Your task to perform on an android device: change the clock display to analog Image 0: 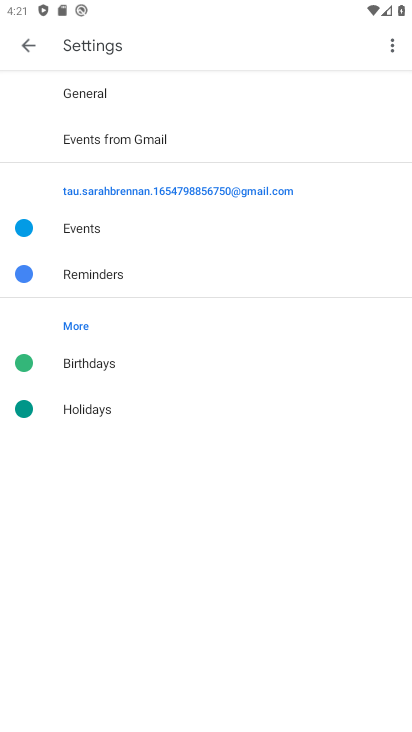
Step 0: press home button
Your task to perform on an android device: change the clock display to analog Image 1: 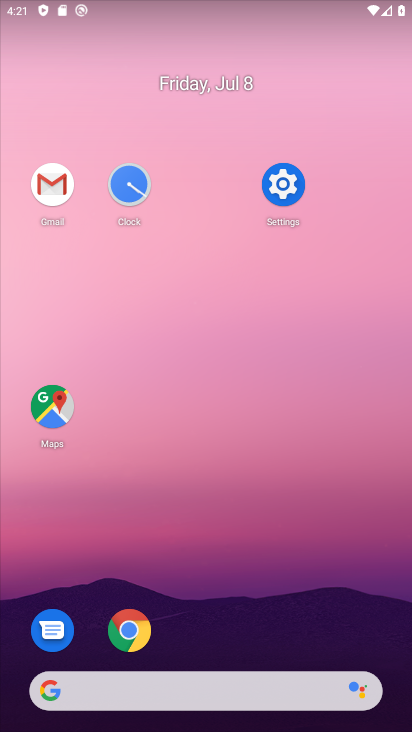
Step 1: click (136, 199)
Your task to perform on an android device: change the clock display to analog Image 2: 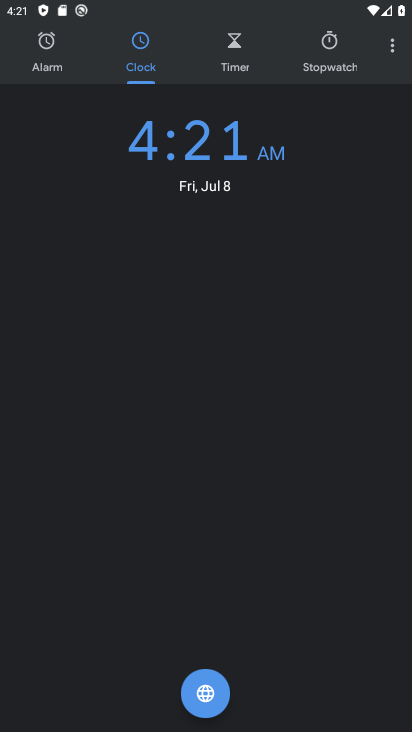
Step 2: click (396, 44)
Your task to perform on an android device: change the clock display to analog Image 3: 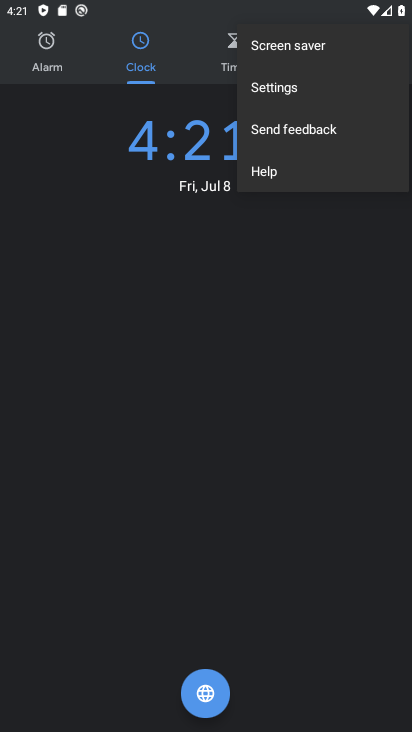
Step 3: click (282, 91)
Your task to perform on an android device: change the clock display to analog Image 4: 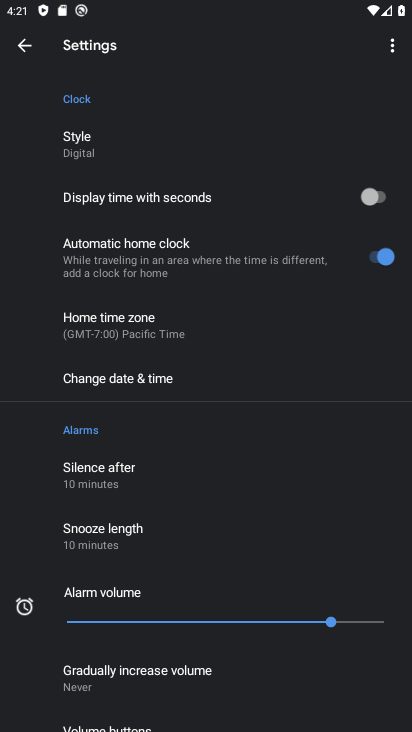
Step 4: click (120, 143)
Your task to perform on an android device: change the clock display to analog Image 5: 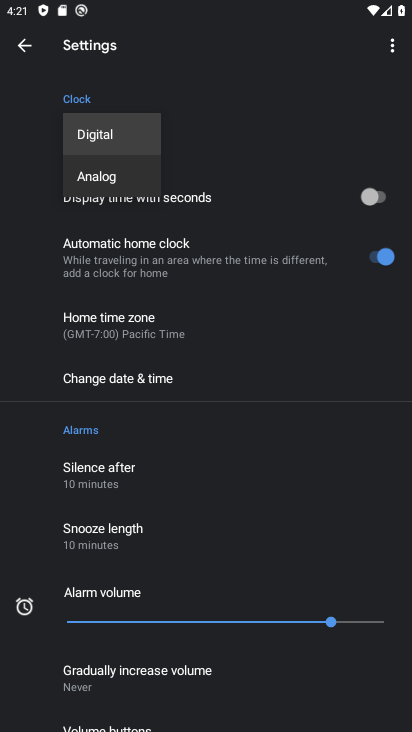
Step 5: click (134, 175)
Your task to perform on an android device: change the clock display to analog Image 6: 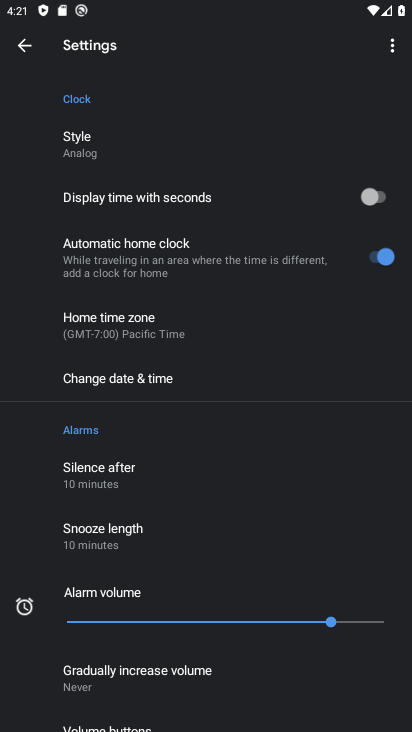
Step 6: task complete